Your task to perform on an android device: Go to battery settings Image 0: 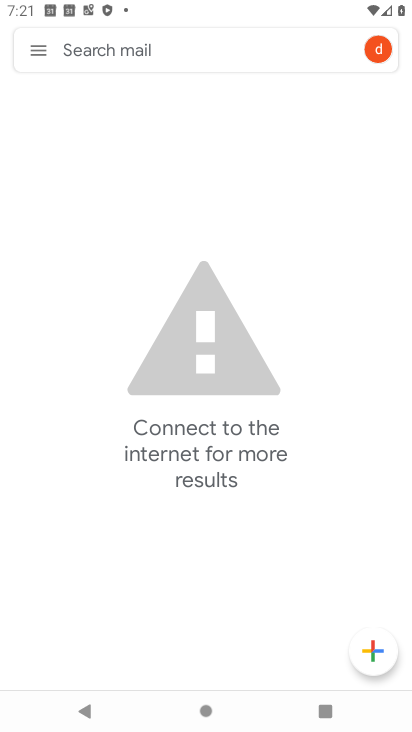
Step 0: press home button
Your task to perform on an android device: Go to battery settings Image 1: 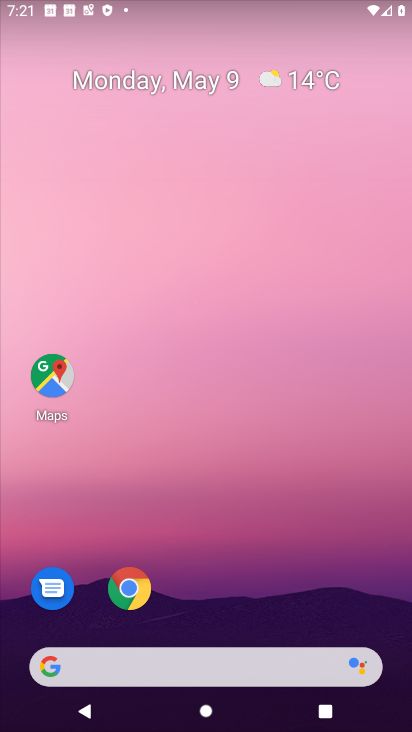
Step 1: drag from (343, 612) to (258, 48)
Your task to perform on an android device: Go to battery settings Image 2: 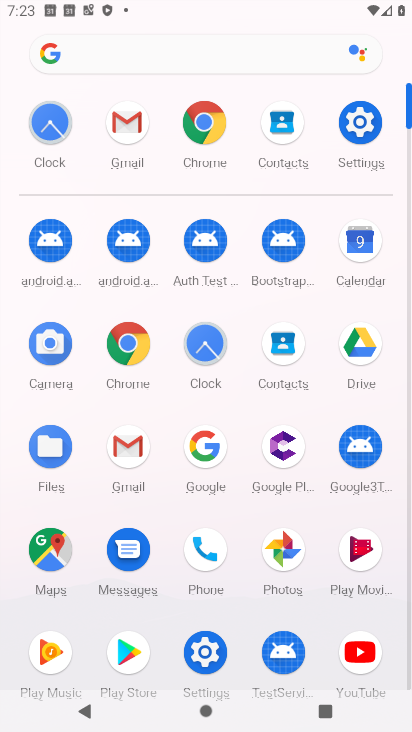
Step 2: click (195, 661)
Your task to perform on an android device: Go to battery settings Image 3: 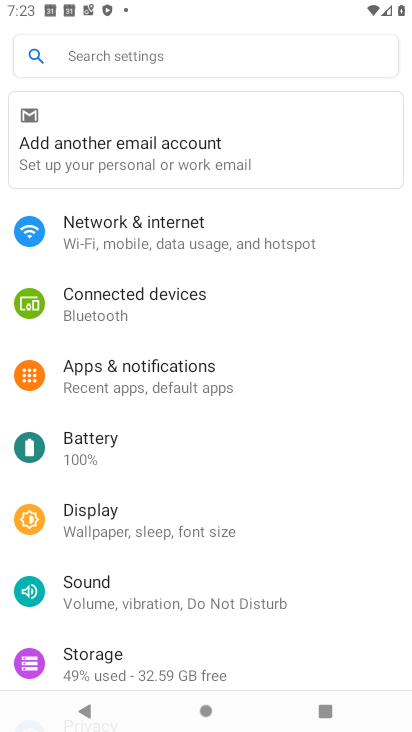
Step 3: click (130, 456)
Your task to perform on an android device: Go to battery settings Image 4: 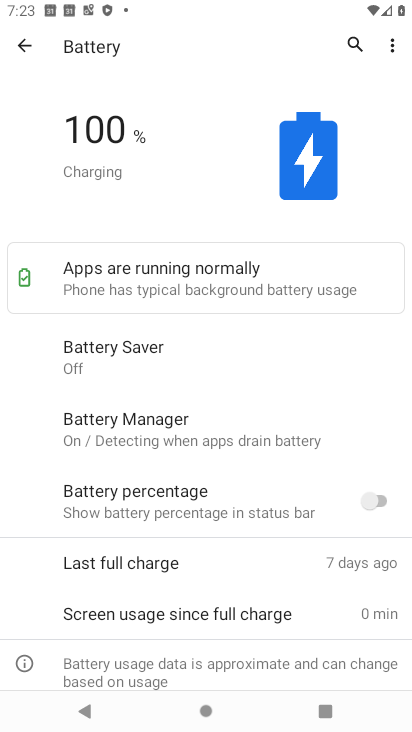
Step 4: task complete